Your task to perform on an android device: turn smart compose on in the gmail app Image 0: 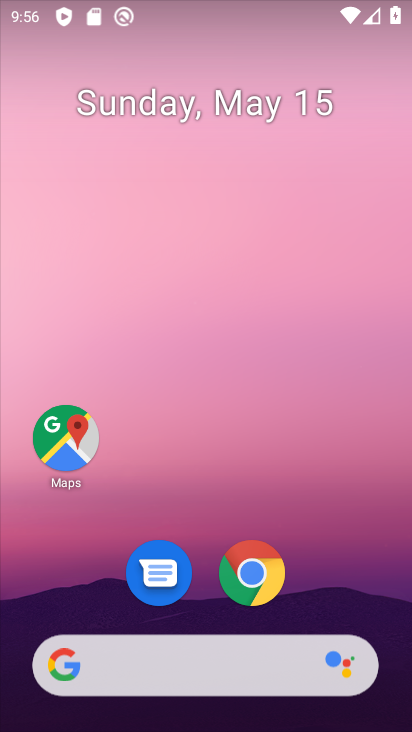
Step 0: drag from (242, 621) to (250, 200)
Your task to perform on an android device: turn smart compose on in the gmail app Image 1: 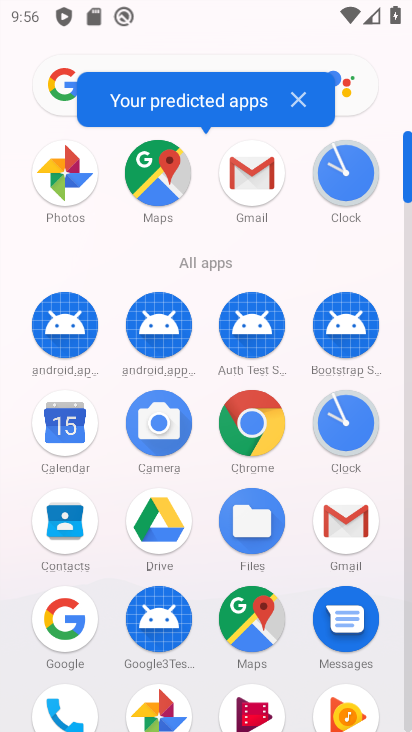
Step 1: click (247, 171)
Your task to perform on an android device: turn smart compose on in the gmail app Image 2: 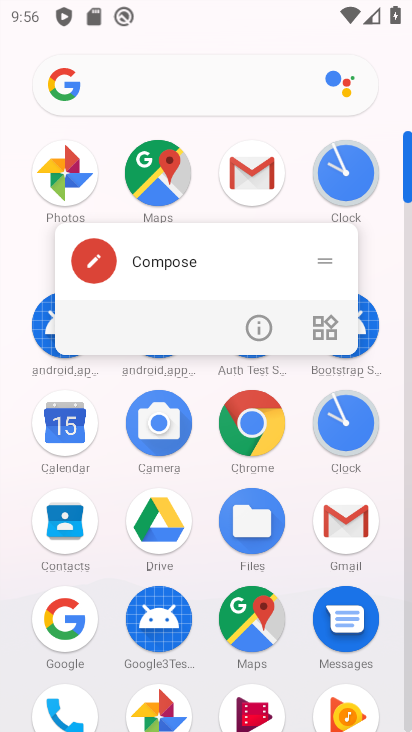
Step 2: click (249, 185)
Your task to perform on an android device: turn smart compose on in the gmail app Image 3: 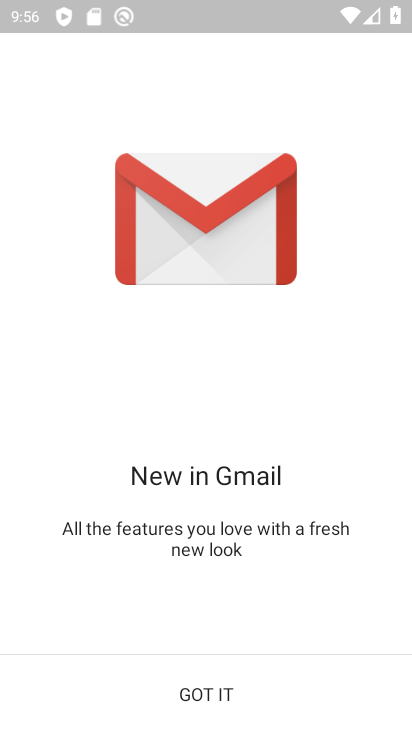
Step 3: click (234, 700)
Your task to perform on an android device: turn smart compose on in the gmail app Image 4: 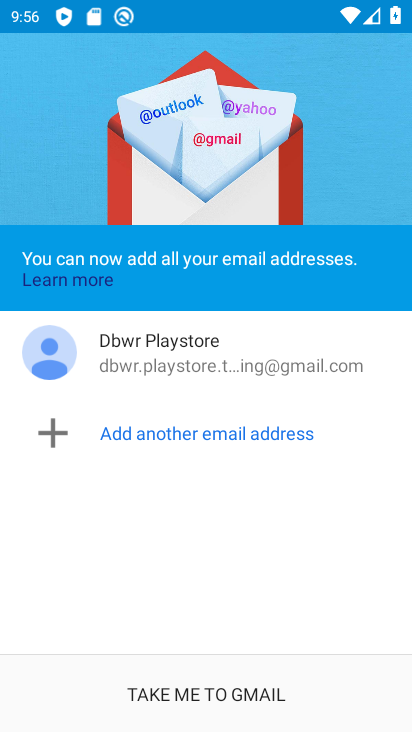
Step 4: click (240, 701)
Your task to perform on an android device: turn smart compose on in the gmail app Image 5: 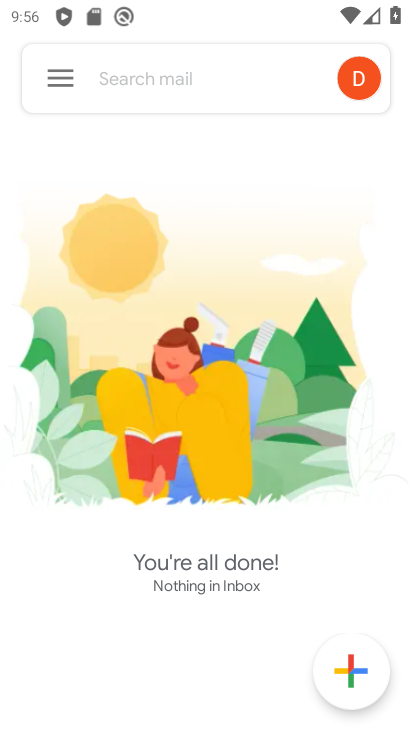
Step 5: click (63, 71)
Your task to perform on an android device: turn smart compose on in the gmail app Image 6: 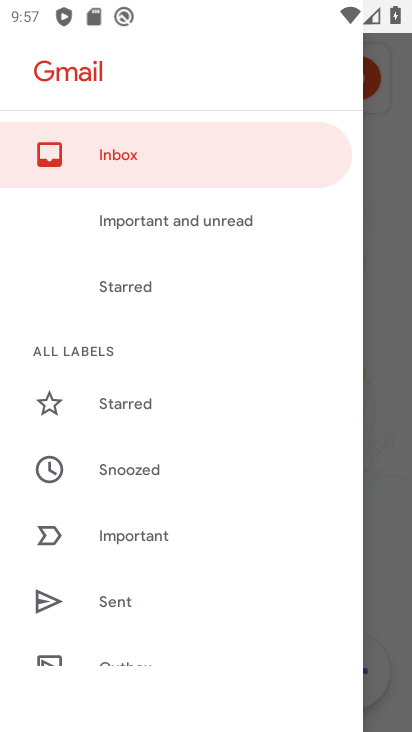
Step 6: drag from (206, 600) to (243, 261)
Your task to perform on an android device: turn smart compose on in the gmail app Image 7: 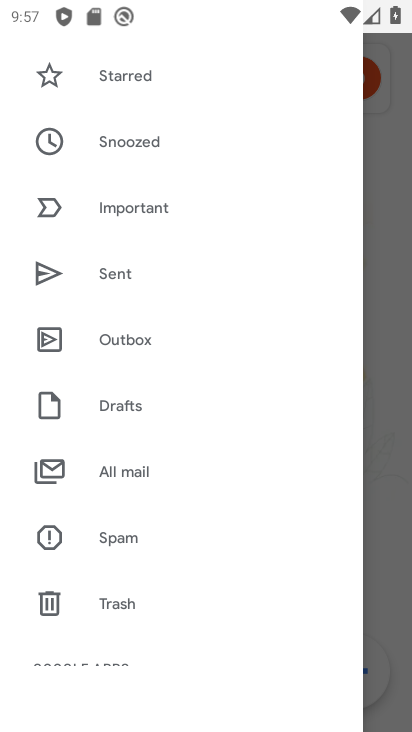
Step 7: drag from (189, 617) to (232, 291)
Your task to perform on an android device: turn smart compose on in the gmail app Image 8: 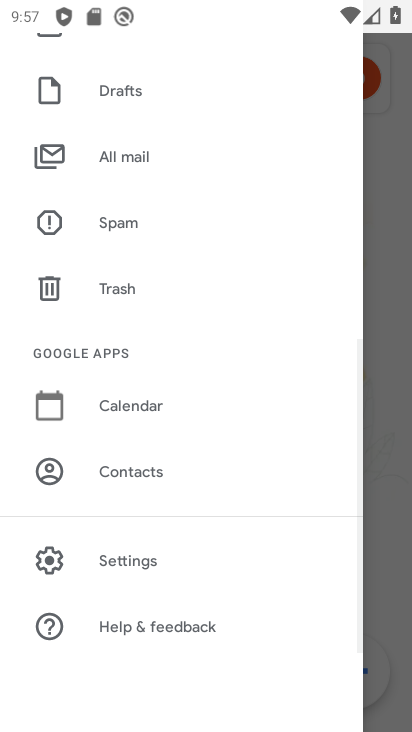
Step 8: click (129, 552)
Your task to perform on an android device: turn smart compose on in the gmail app Image 9: 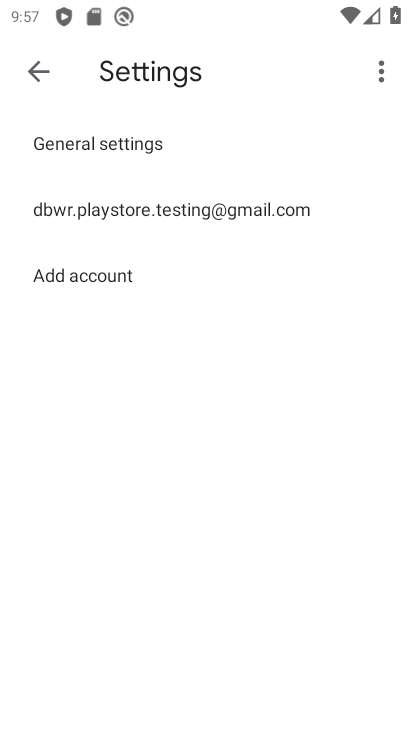
Step 9: click (81, 217)
Your task to perform on an android device: turn smart compose on in the gmail app Image 10: 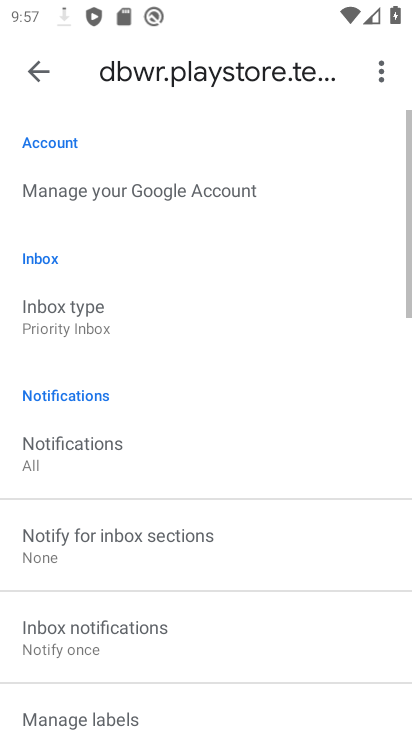
Step 10: task complete